Your task to perform on an android device: Show the shopping cart on newegg.com. Image 0: 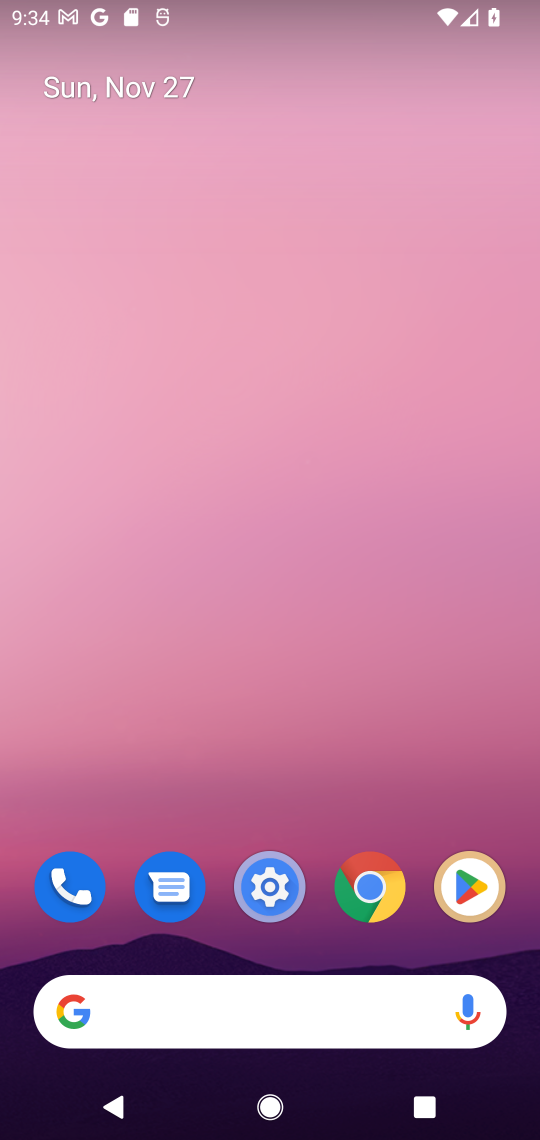
Step 0: click (230, 1005)
Your task to perform on an android device: Show the shopping cart on newegg.com. Image 1: 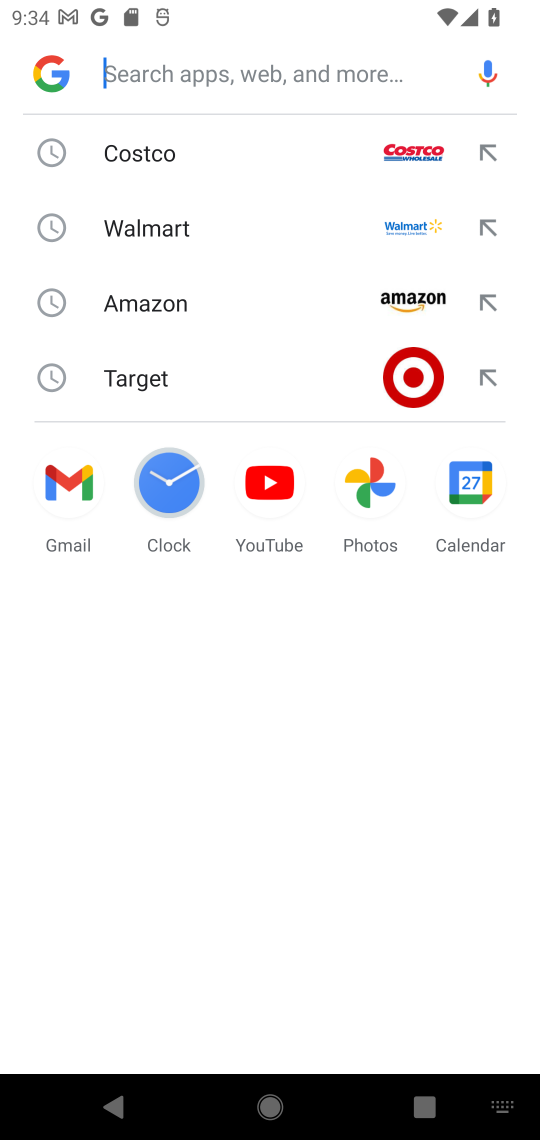
Step 1: type "newegg"
Your task to perform on an android device: Show the shopping cart on newegg.com. Image 2: 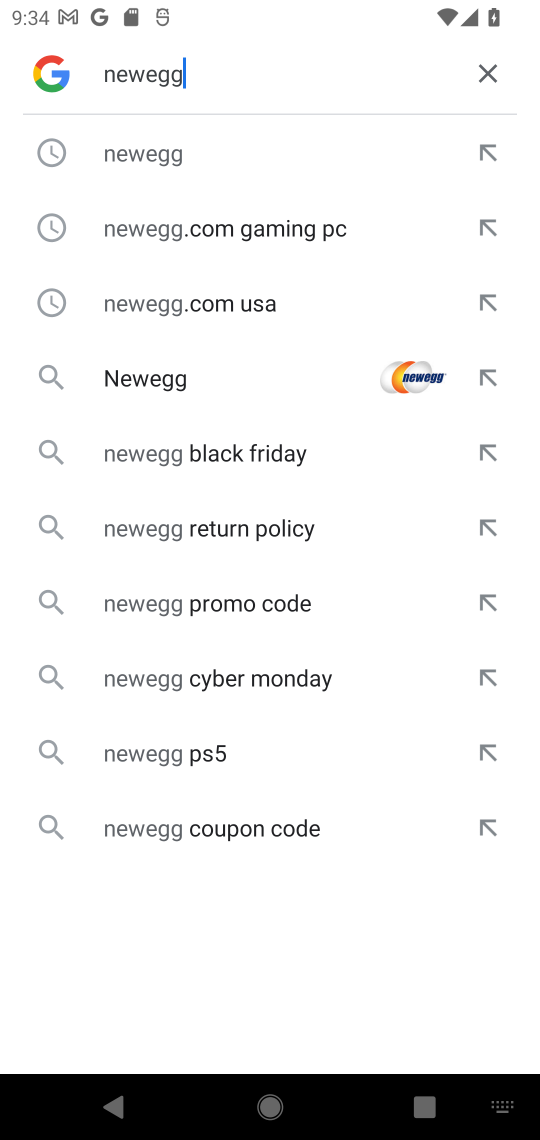
Step 2: click (145, 176)
Your task to perform on an android device: Show the shopping cart on newegg.com. Image 3: 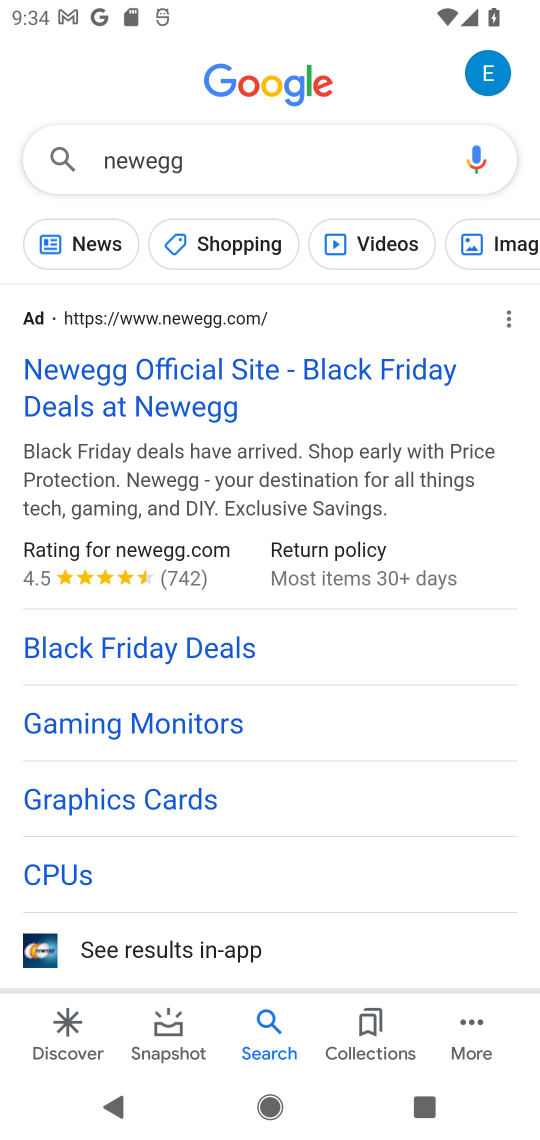
Step 3: click (228, 372)
Your task to perform on an android device: Show the shopping cart on newegg.com. Image 4: 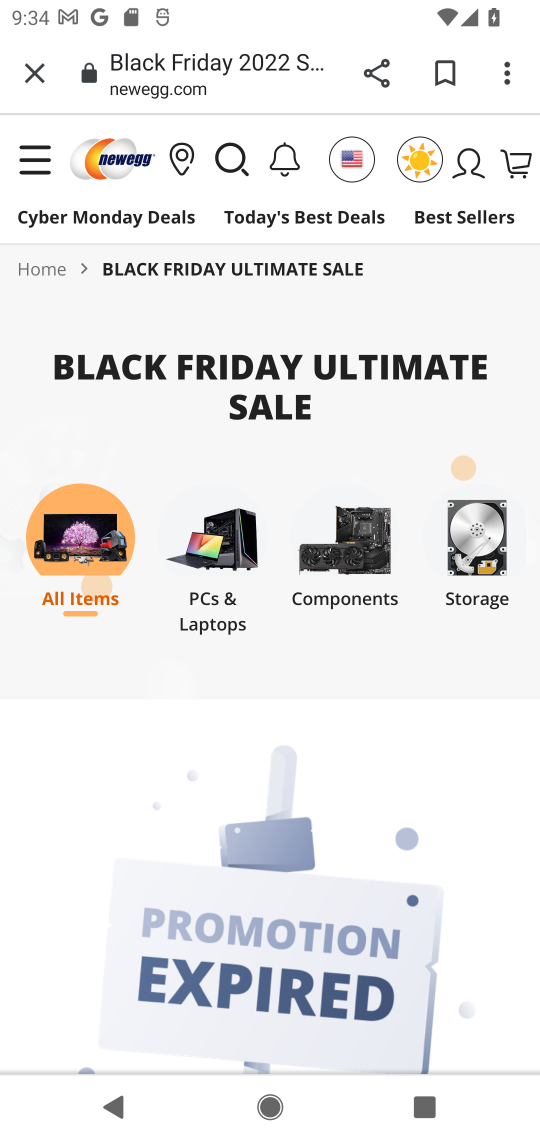
Step 4: task complete